Your task to perform on an android device: open chrome privacy settings Image 0: 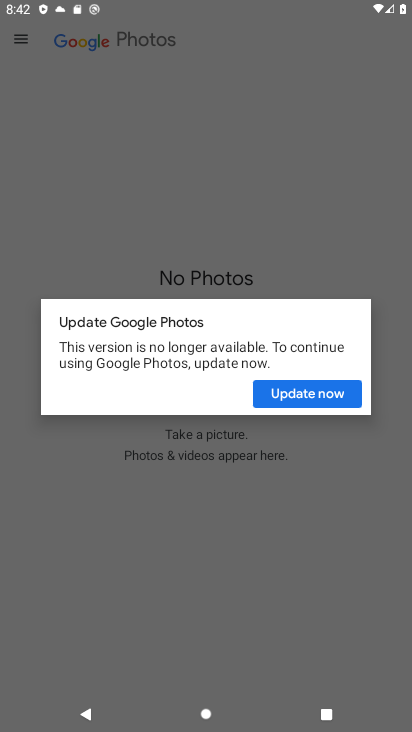
Step 0: press home button
Your task to perform on an android device: open chrome privacy settings Image 1: 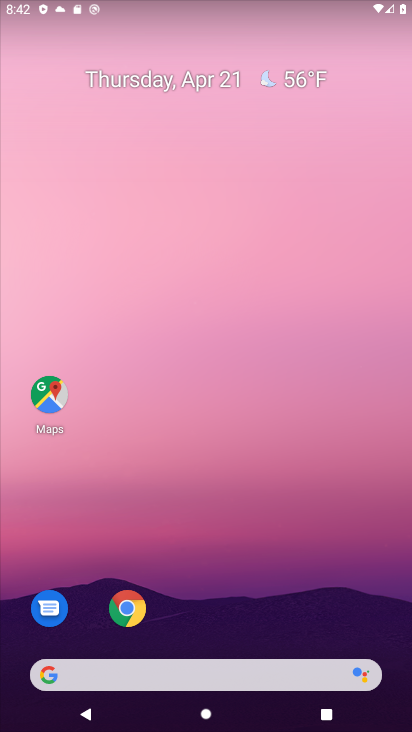
Step 1: click (136, 608)
Your task to perform on an android device: open chrome privacy settings Image 2: 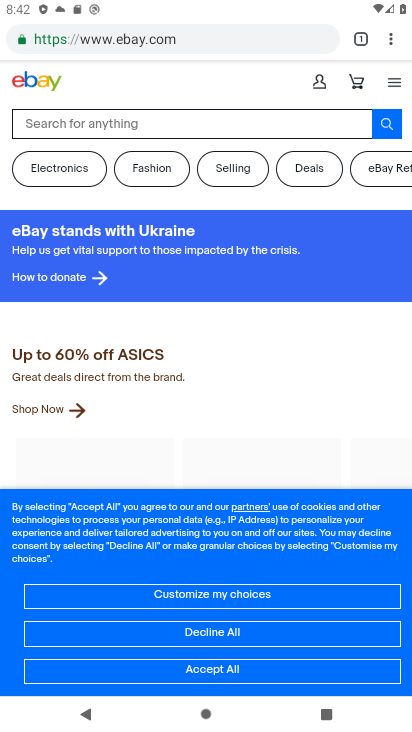
Step 2: click (389, 36)
Your task to perform on an android device: open chrome privacy settings Image 3: 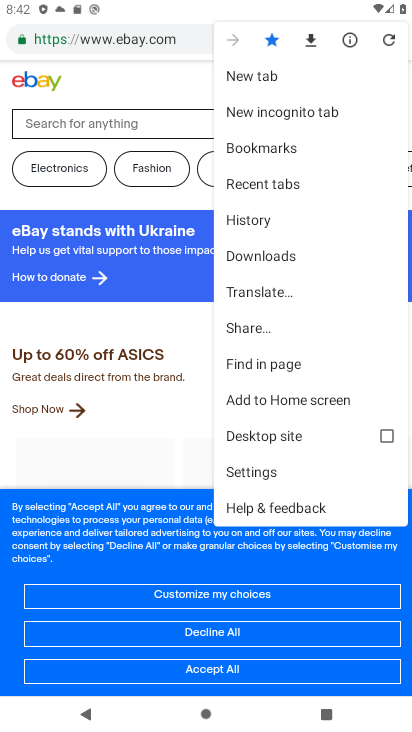
Step 3: click (285, 471)
Your task to perform on an android device: open chrome privacy settings Image 4: 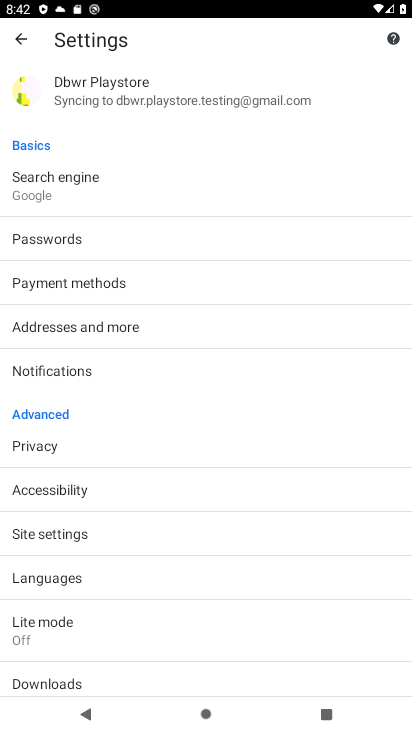
Step 4: click (260, 438)
Your task to perform on an android device: open chrome privacy settings Image 5: 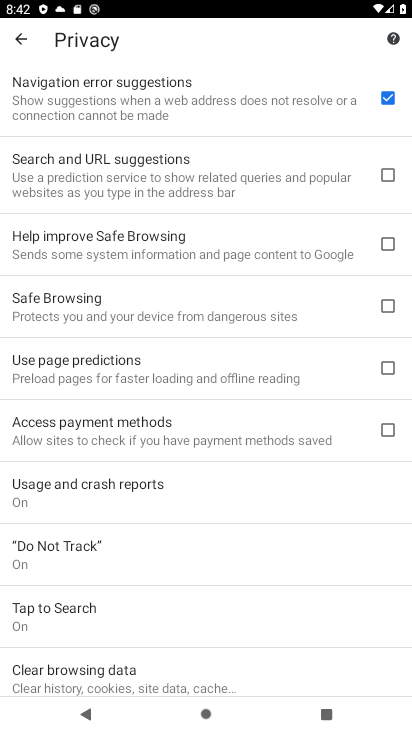
Step 5: task complete